Your task to perform on an android device: Open the web browser Image 0: 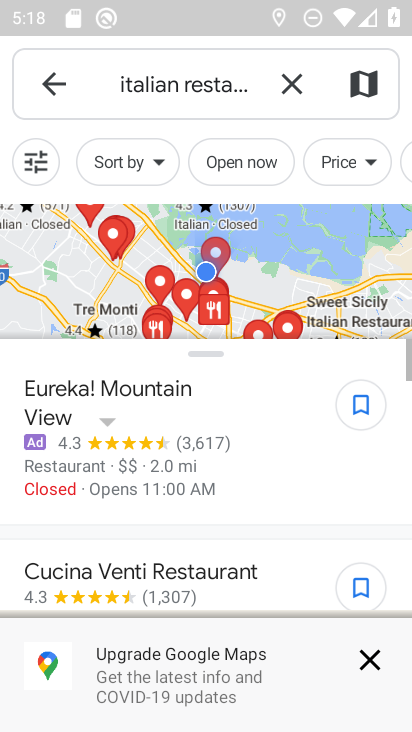
Step 0: drag from (124, 11) to (160, 637)
Your task to perform on an android device: Open the web browser Image 1: 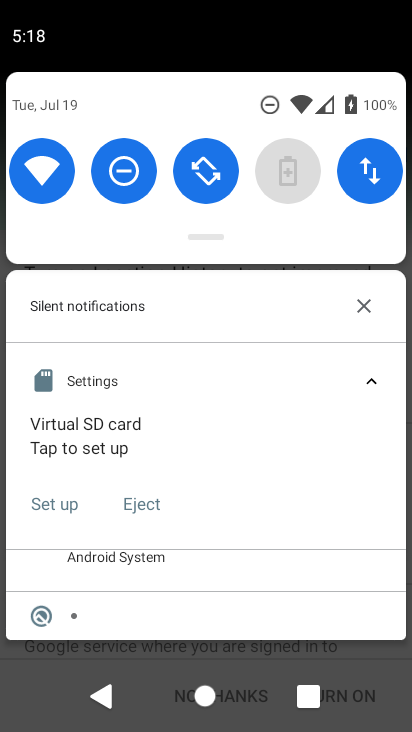
Step 1: drag from (165, 645) to (241, 51)
Your task to perform on an android device: Open the web browser Image 2: 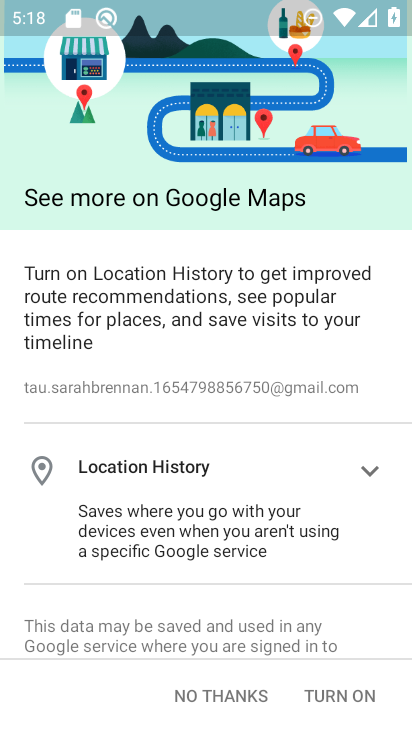
Step 2: press back button
Your task to perform on an android device: Open the web browser Image 3: 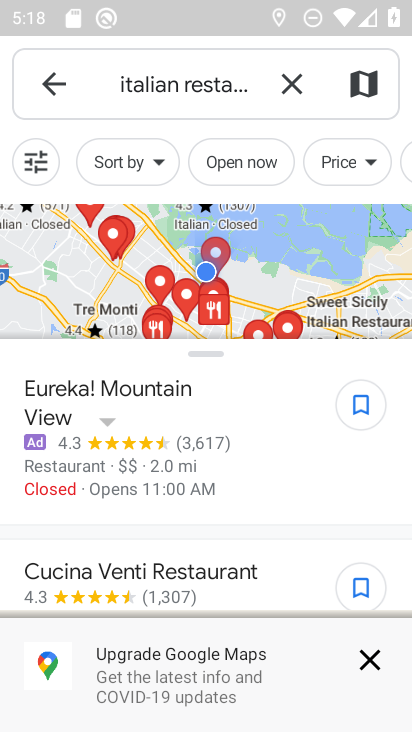
Step 3: press back button
Your task to perform on an android device: Open the web browser Image 4: 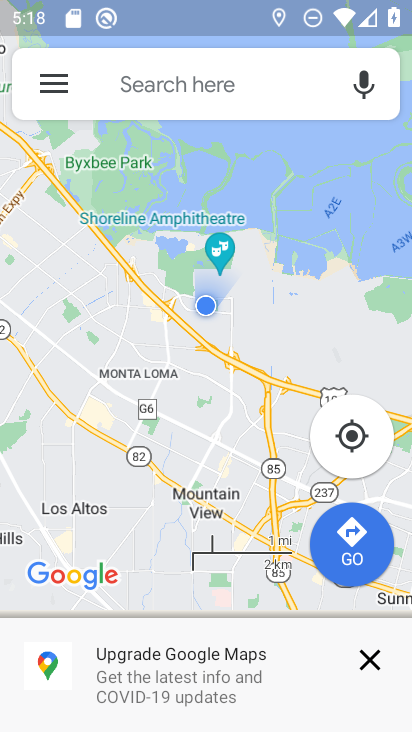
Step 4: press back button
Your task to perform on an android device: Open the web browser Image 5: 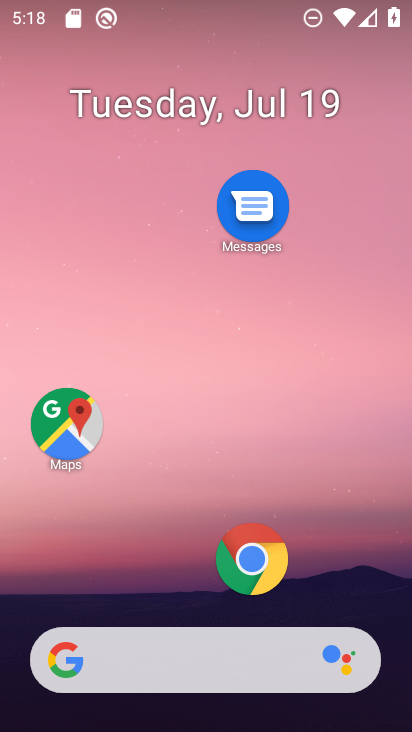
Step 5: click (266, 578)
Your task to perform on an android device: Open the web browser Image 6: 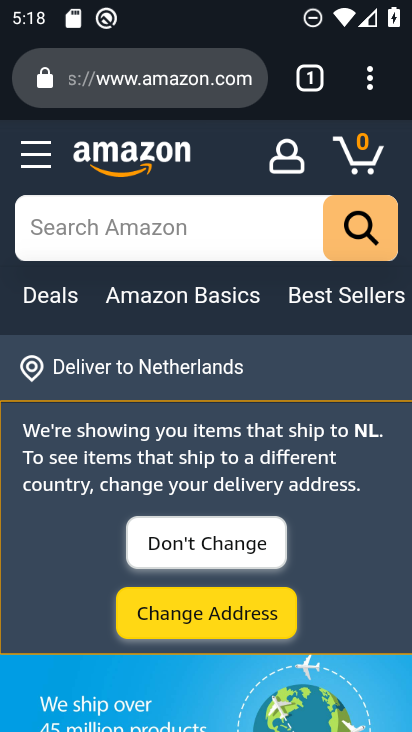
Step 6: task complete